Your task to perform on an android device: Add beats solo 3 to the cart on newegg.com, then select checkout. Image 0: 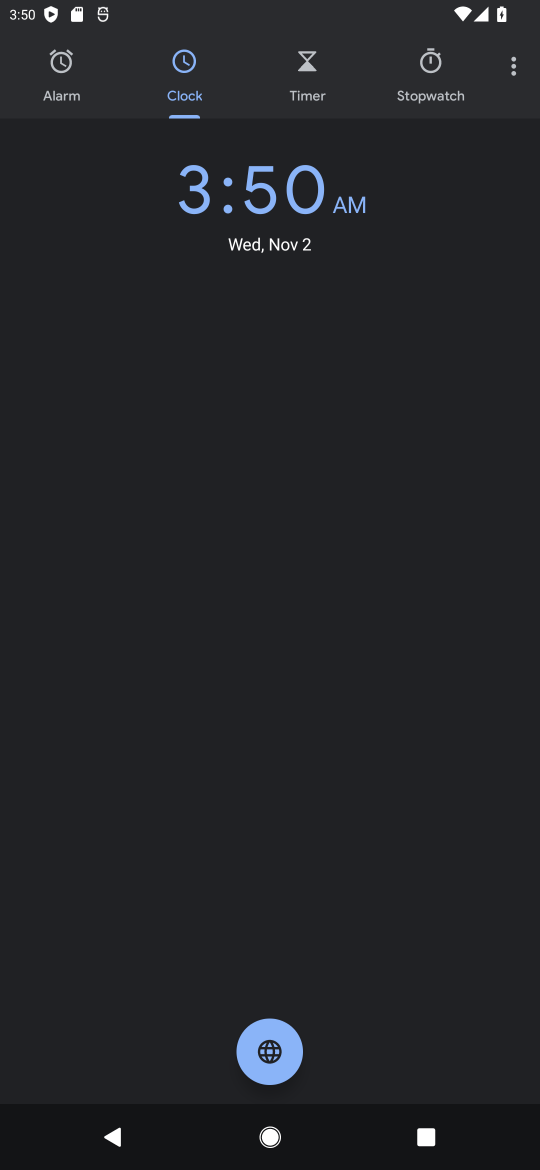
Step 0: press home button
Your task to perform on an android device: Add beats solo 3 to the cart on newegg.com, then select checkout. Image 1: 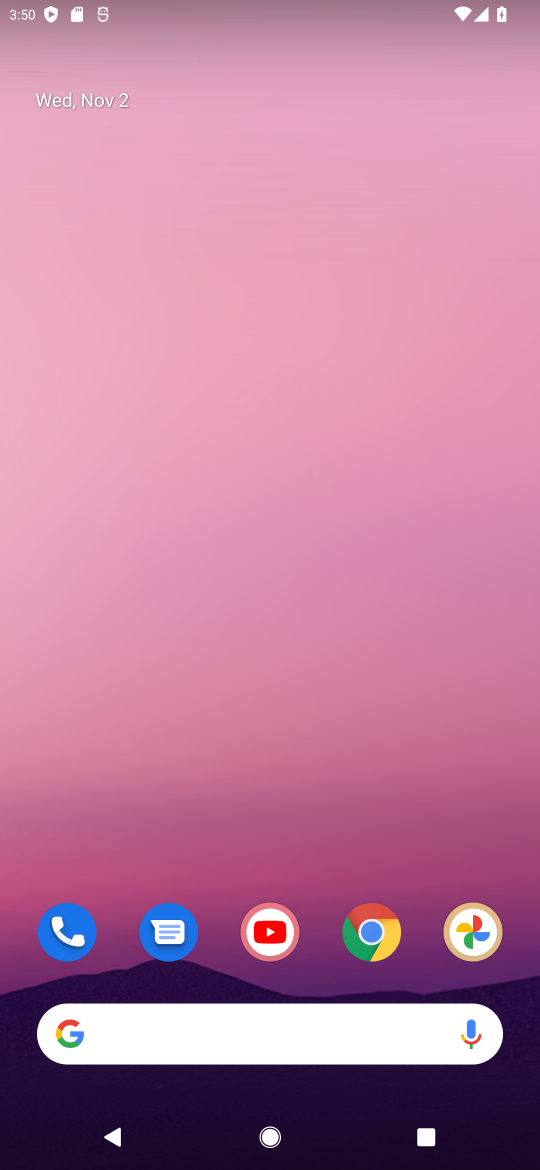
Step 1: click (377, 951)
Your task to perform on an android device: Add beats solo 3 to the cart on newegg.com, then select checkout. Image 2: 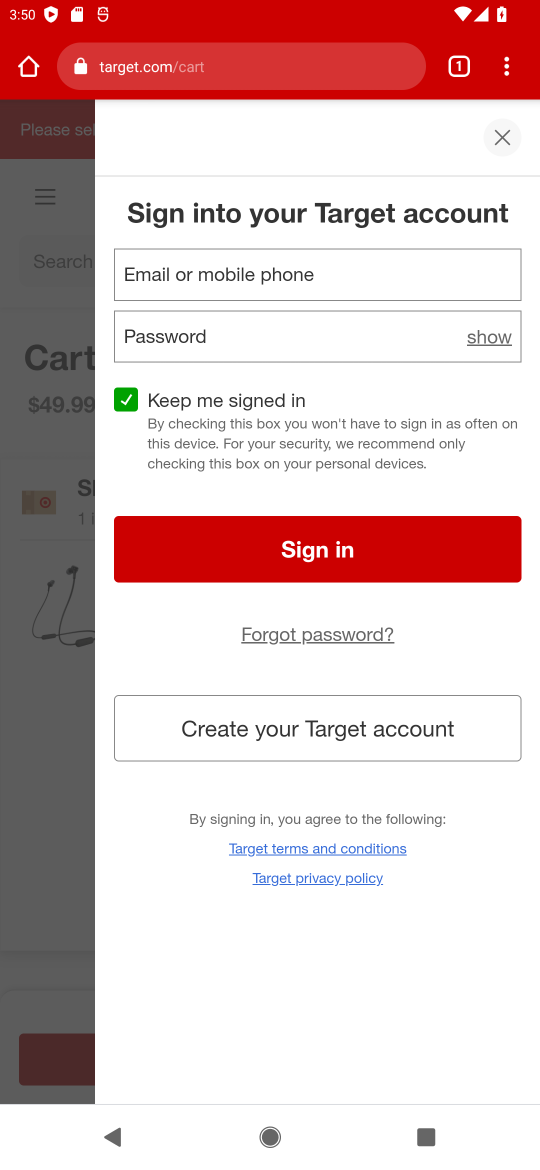
Step 2: click (174, 72)
Your task to perform on an android device: Add beats solo 3 to the cart on newegg.com, then select checkout. Image 3: 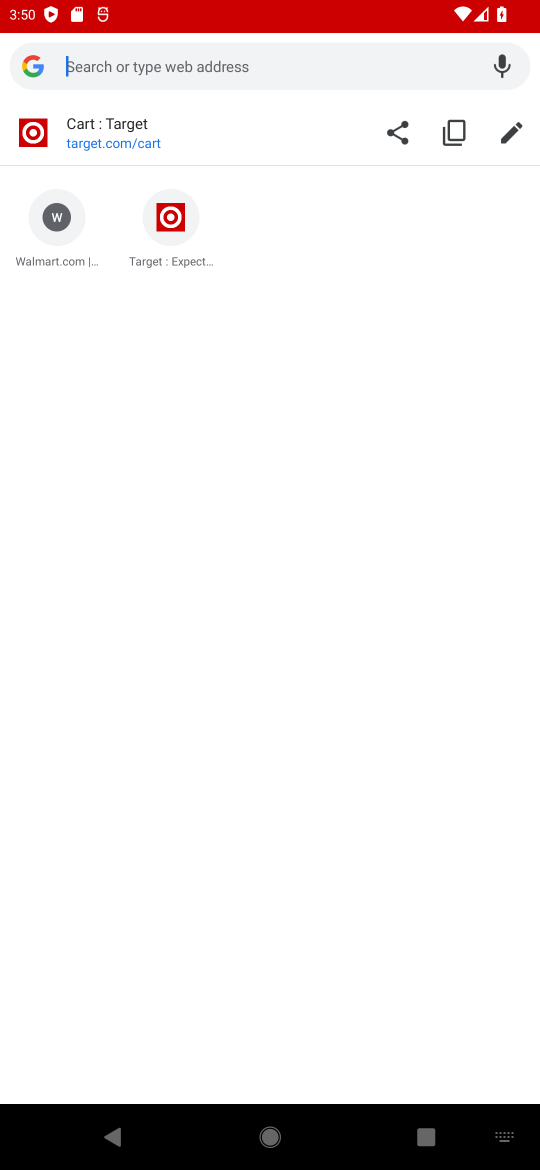
Step 3: type "newegg"
Your task to perform on an android device: Add beats solo 3 to the cart on newegg.com, then select checkout. Image 4: 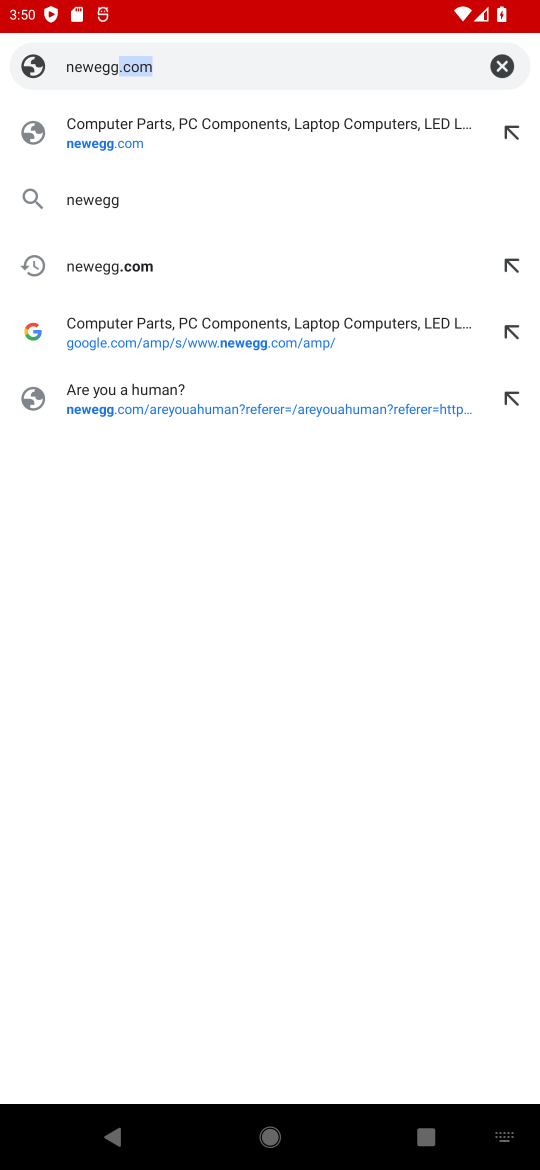
Step 4: click (157, 139)
Your task to perform on an android device: Add beats solo 3 to the cart on newegg.com, then select checkout. Image 5: 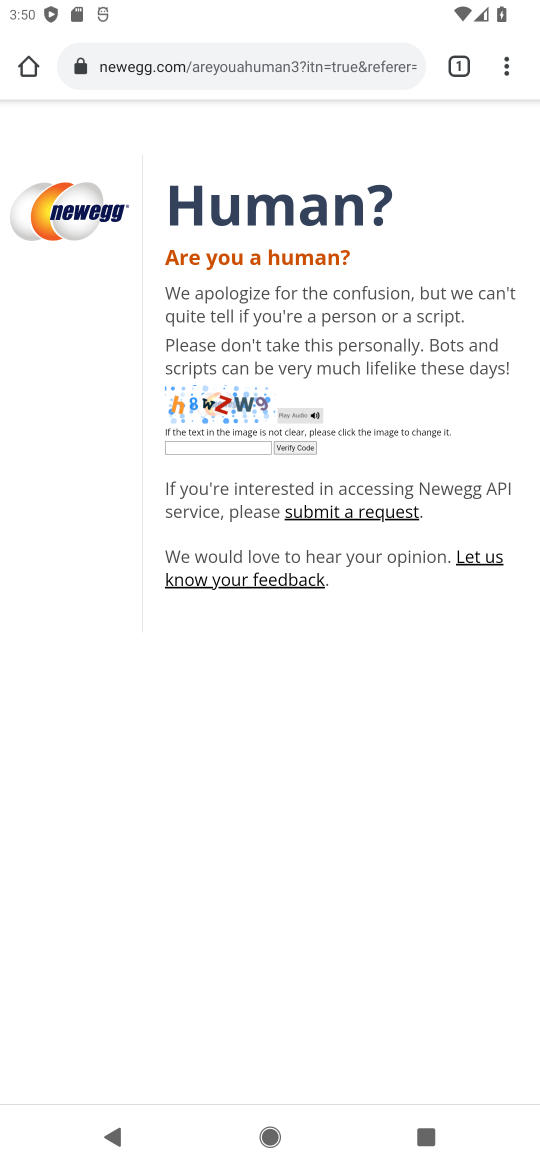
Step 5: click (181, 447)
Your task to perform on an android device: Add beats solo 3 to the cart on newegg.com, then select checkout. Image 6: 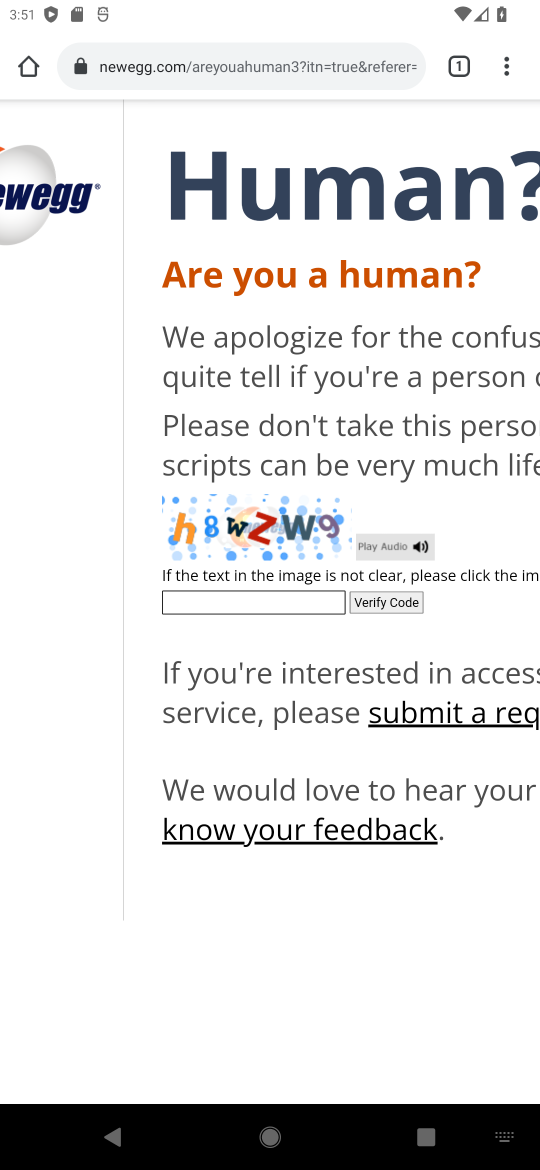
Step 6: type "h8wZW9"
Your task to perform on an android device: Add beats solo 3 to the cart on newegg.com, then select checkout. Image 7: 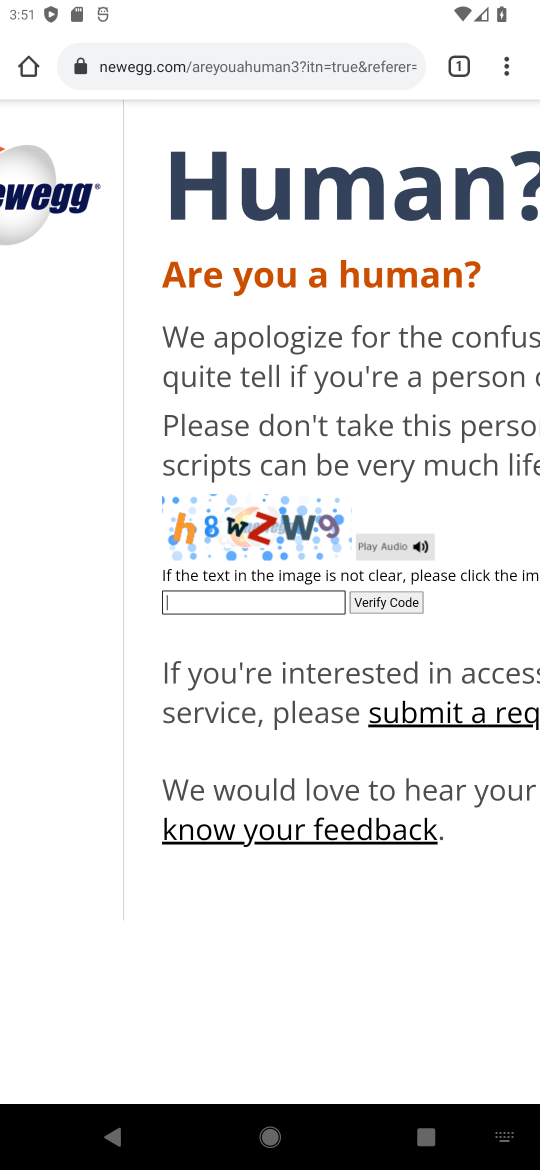
Step 7: press enter
Your task to perform on an android device: Add beats solo 3 to the cart on newegg.com, then select checkout. Image 8: 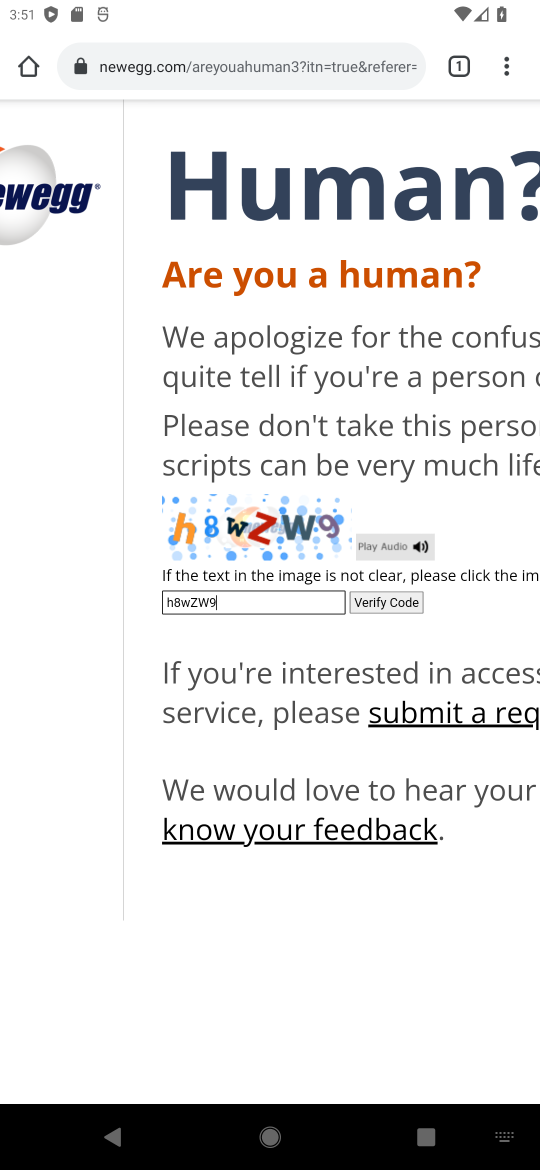
Step 8: click (370, 610)
Your task to perform on an android device: Add beats solo 3 to the cart on newegg.com, then select checkout. Image 9: 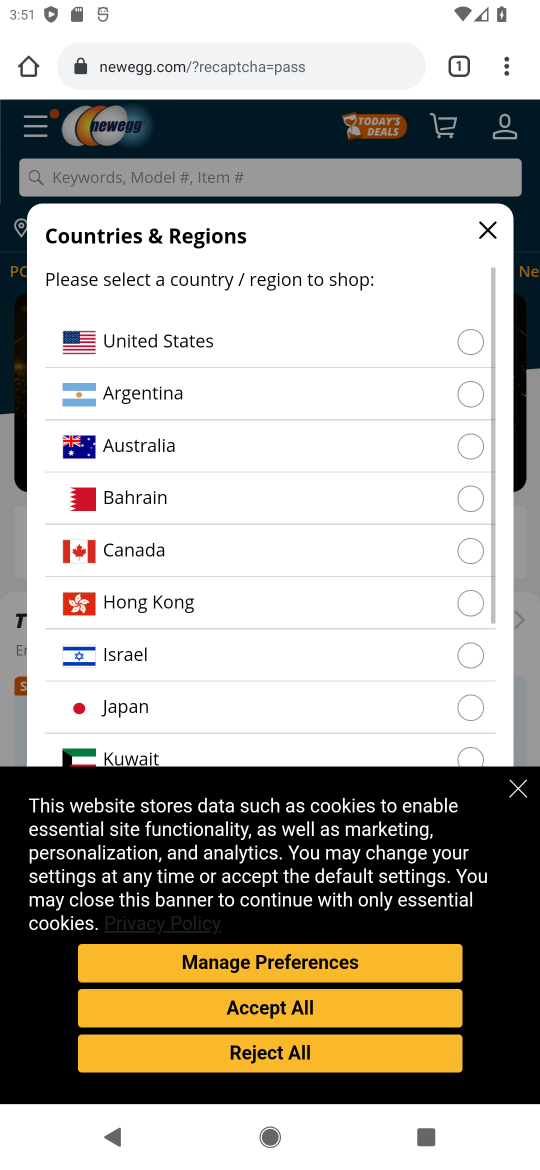
Step 9: click (463, 350)
Your task to perform on an android device: Add beats solo 3 to the cart on newegg.com, then select checkout. Image 10: 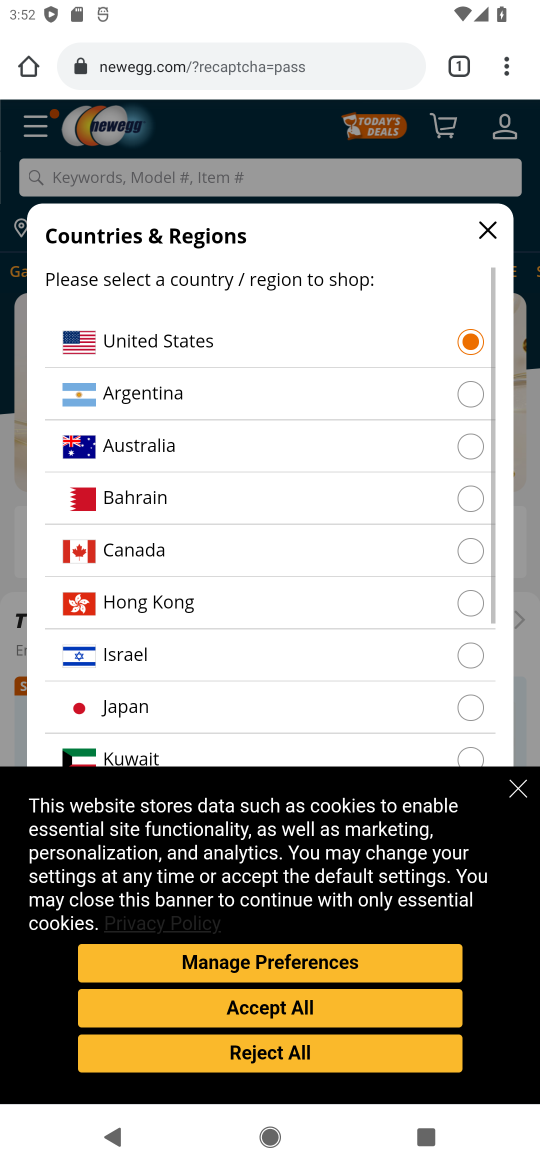
Step 10: click (257, 1019)
Your task to perform on an android device: Add beats solo 3 to the cart on newegg.com, then select checkout. Image 11: 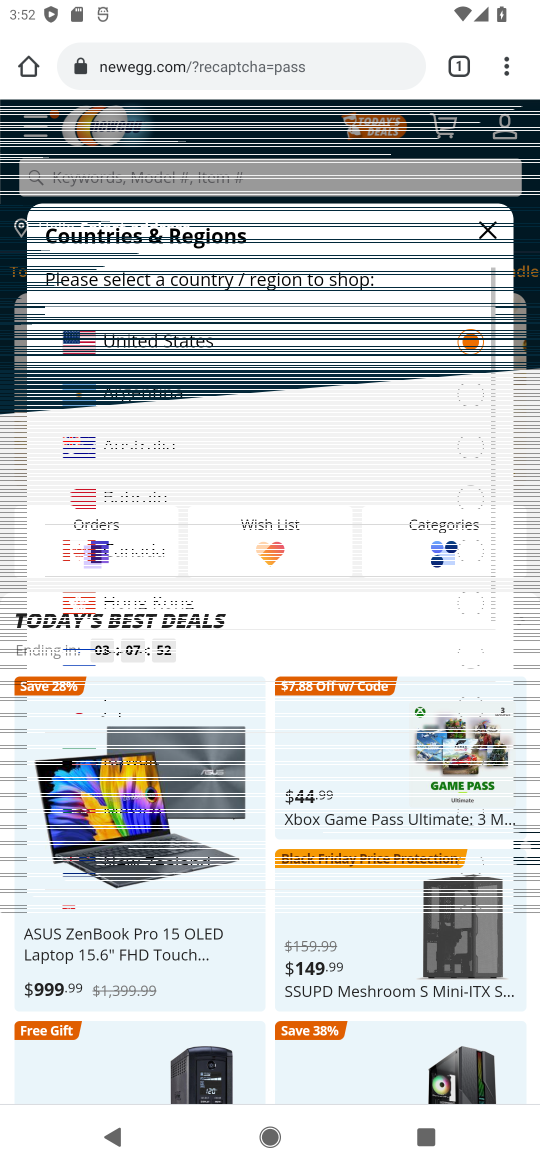
Step 11: click (235, 970)
Your task to perform on an android device: Add beats solo 3 to the cart on newegg.com, then select checkout. Image 12: 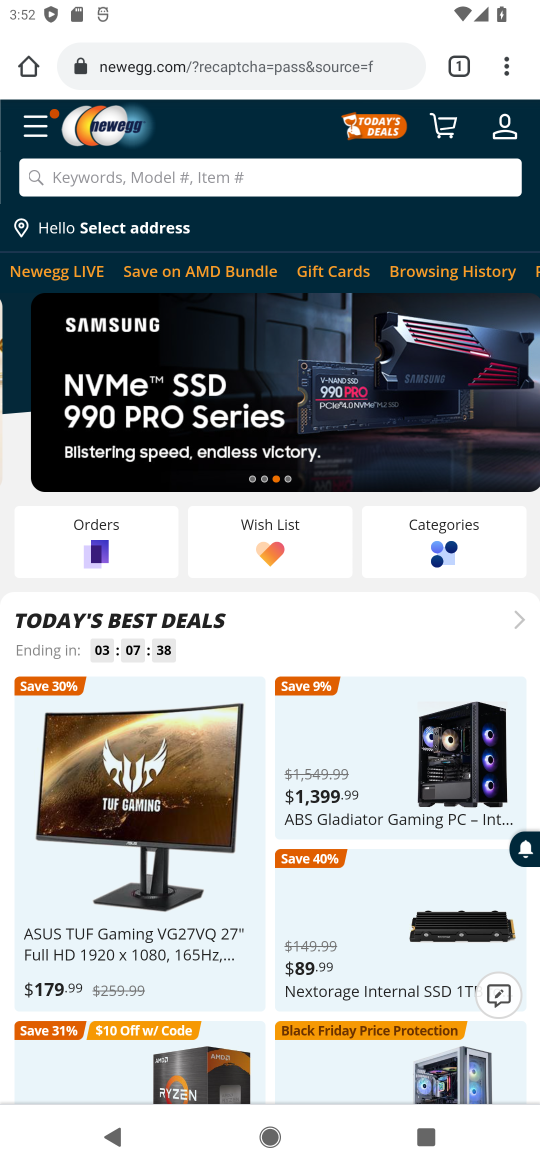
Step 12: click (127, 180)
Your task to perform on an android device: Add beats solo 3 to the cart on newegg.com, then select checkout. Image 13: 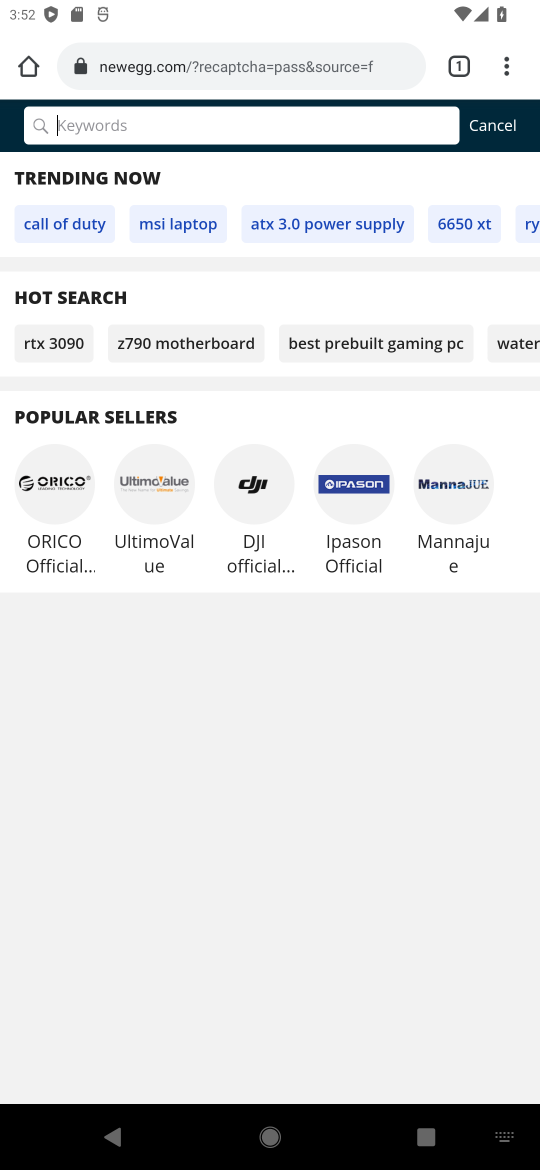
Step 13: type "beats solo 3"
Your task to perform on an android device: Add beats solo 3 to the cart on newegg.com, then select checkout. Image 14: 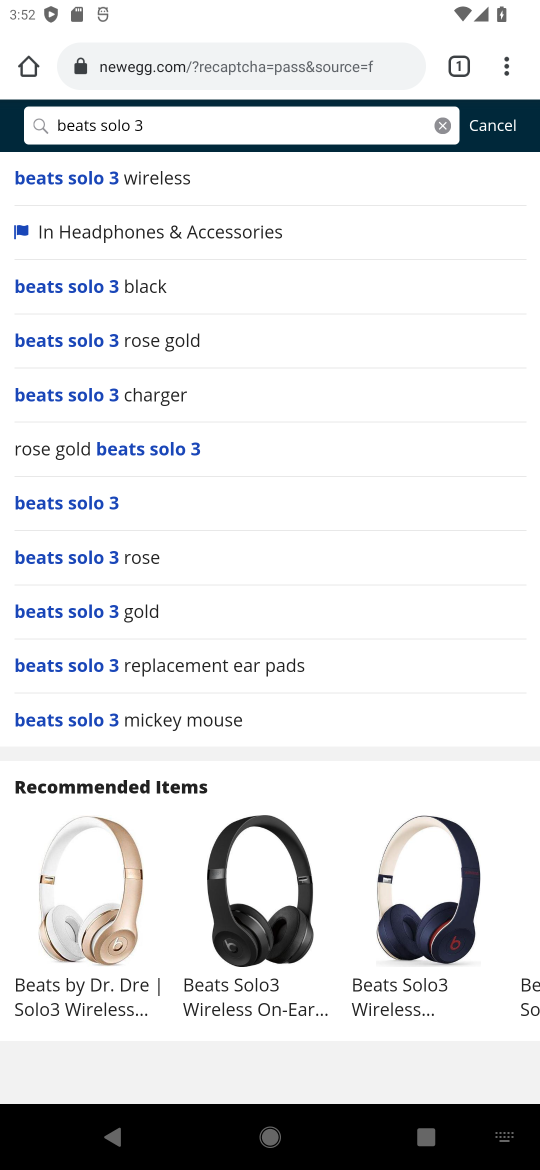
Step 14: press enter
Your task to perform on an android device: Add beats solo 3 to the cart on newegg.com, then select checkout. Image 15: 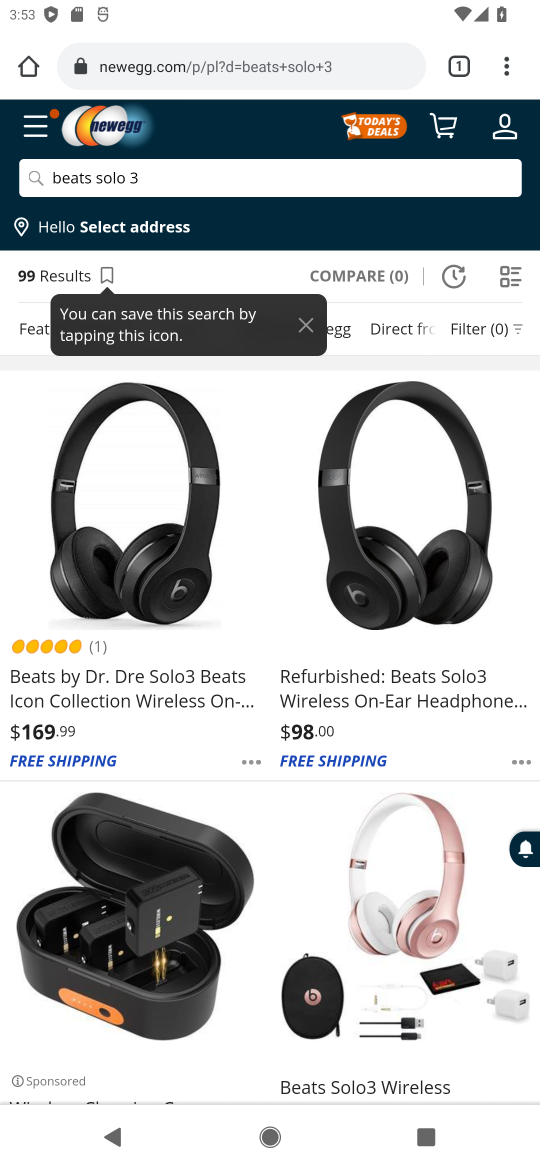
Step 15: drag from (256, 786) to (287, 561)
Your task to perform on an android device: Add beats solo 3 to the cart on newegg.com, then select checkout. Image 16: 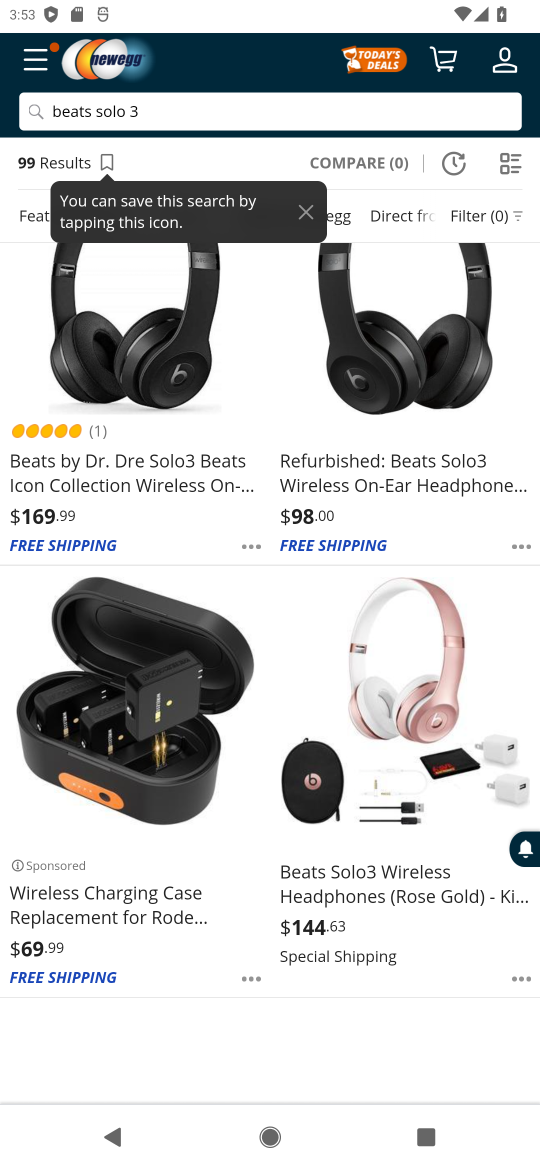
Step 16: click (380, 486)
Your task to perform on an android device: Add beats solo 3 to the cart on newegg.com, then select checkout. Image 17: 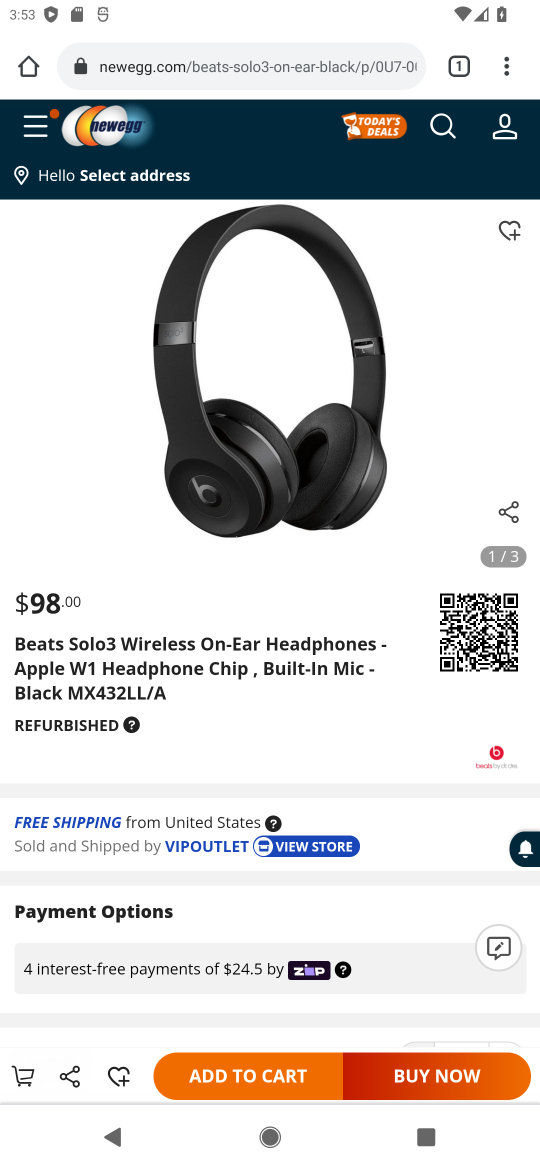
Step 17: click (237, 1083)
Your task to perform on an android device: Add beats solo 3 to the cart on newegg.com, then select checkout. Image 18: 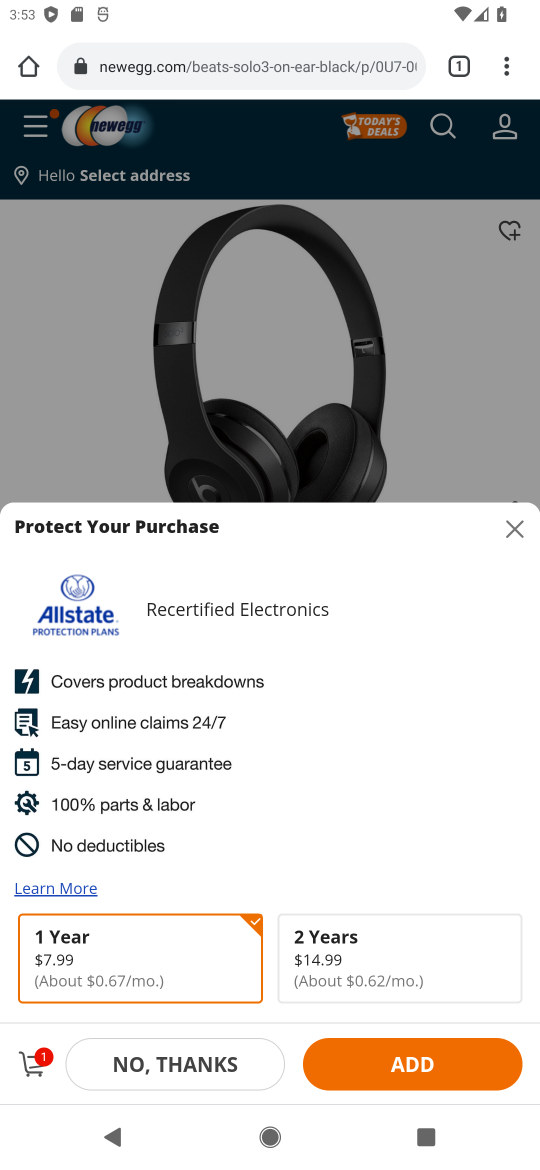
Step 18: click (405, 1070)
Your task to perform on an android device: Add beats solo 3 to the cart on newegg.com, then select checkout. Image 19: 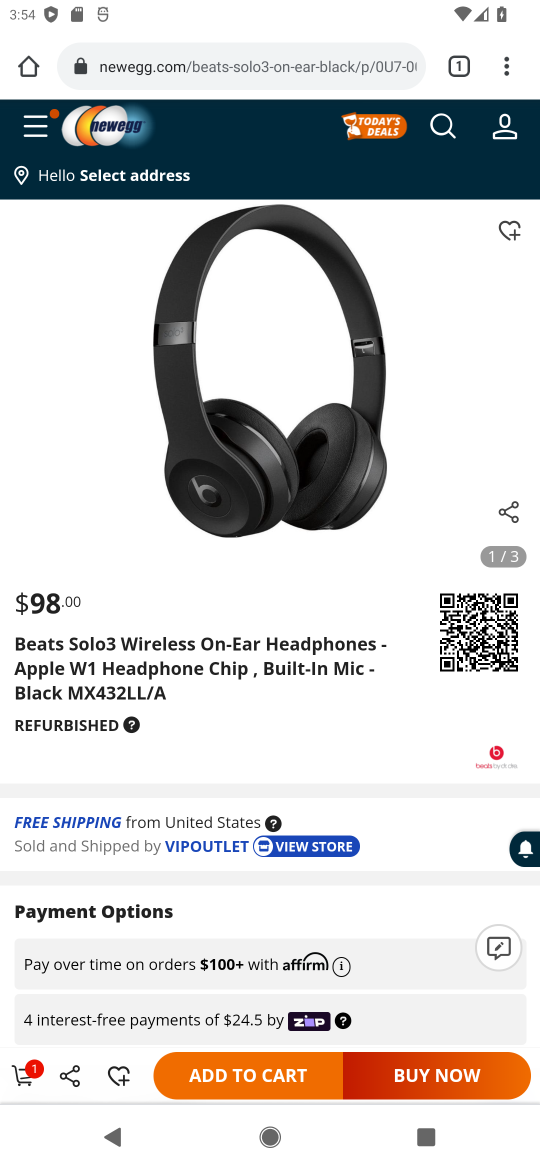
Step 19: click (35, 132)
Your task to perform on an android device: Add beats solo 3 to the cart on newegg.com, then select checkout. Image 20: 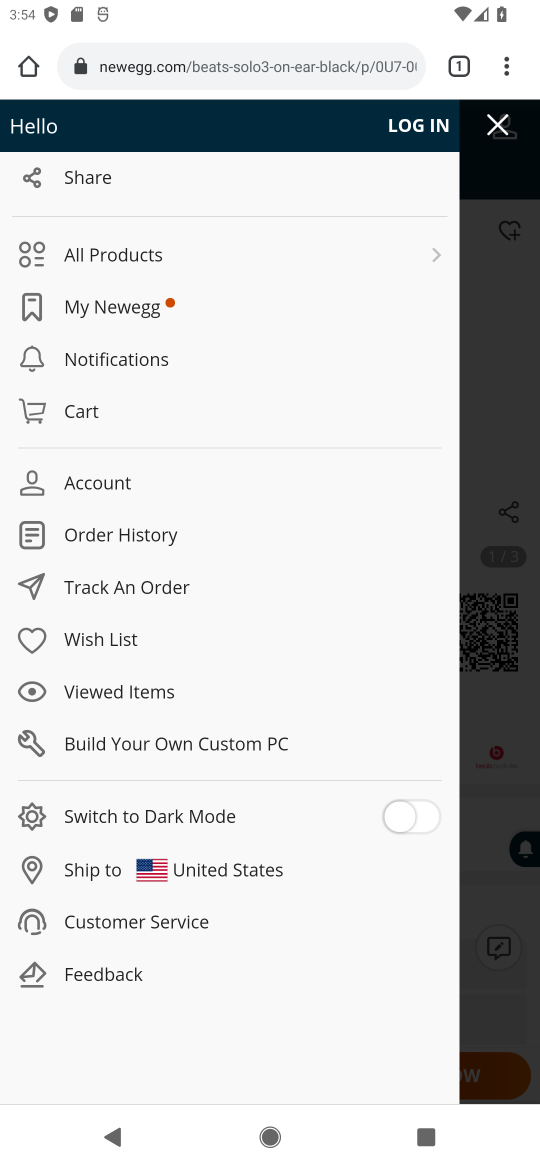
Step 20: click (89, 411)
Your task to perform on an android device: Add beats solo 3 to the cart on newegg.com, then select checkout. Image 21: 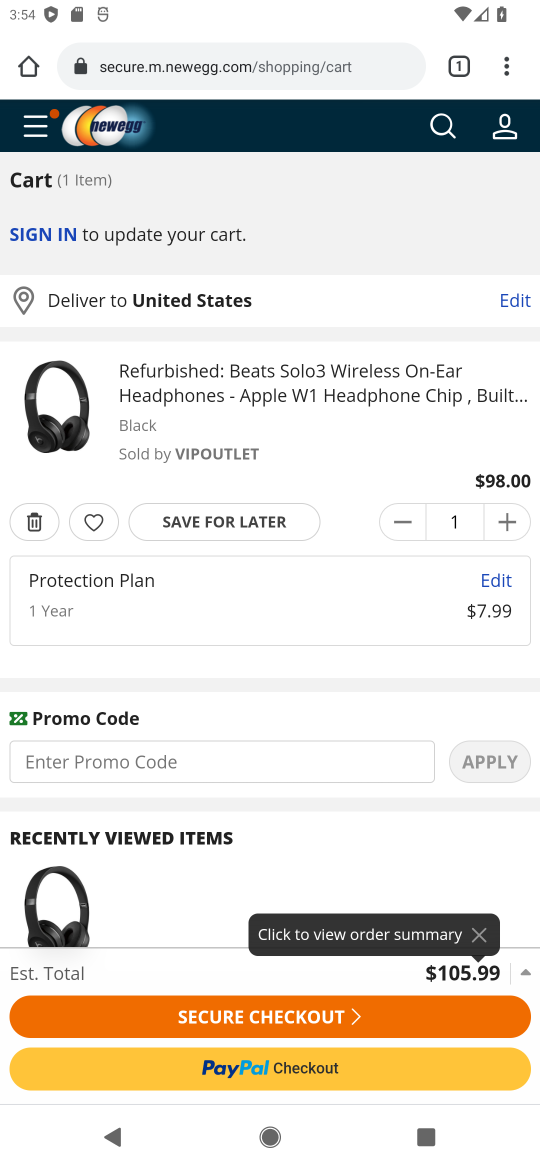
Step 21: click (273, 1016)
Your task to perform on an android device: Add beats solo 3 to the cart on newegg.com, then select checkout. Image 22: 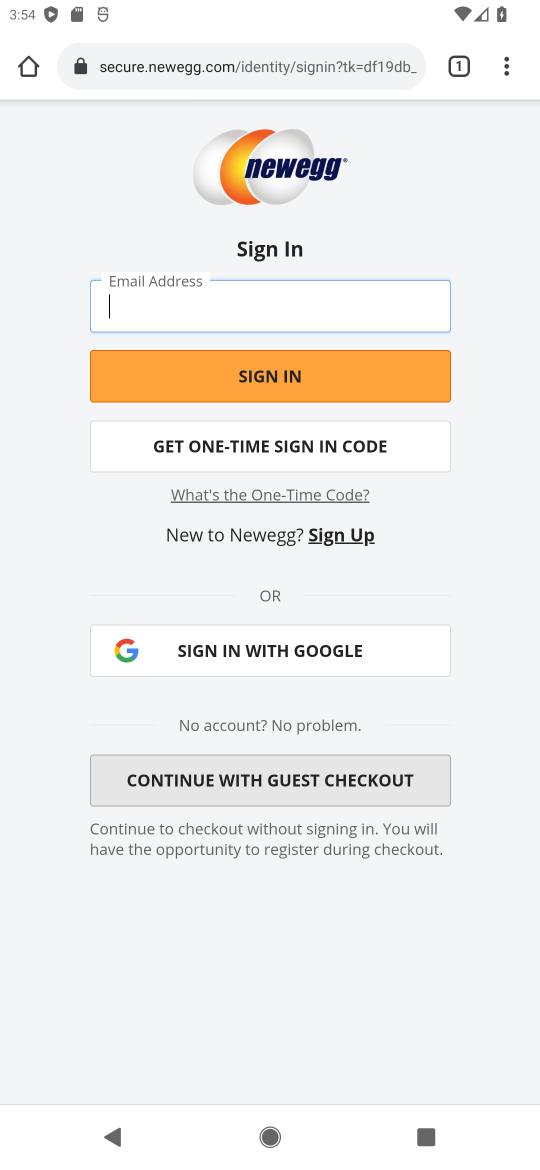
Step 22: task complete